Your task to perform on an android device: show emergency info Image 0: 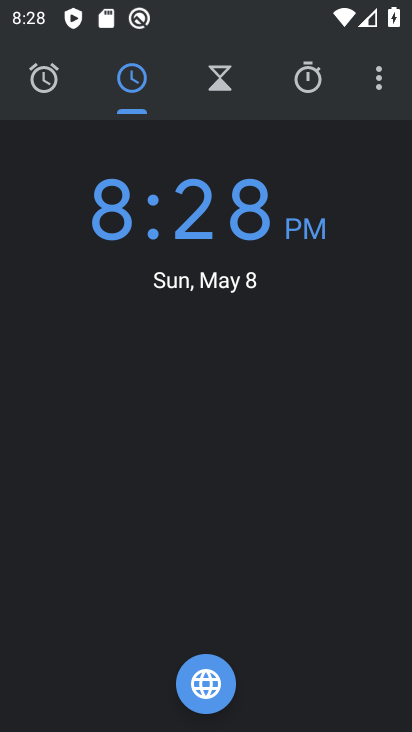
Step 0: press home button
Your task to perform on an android device: show emergency info Image 1: 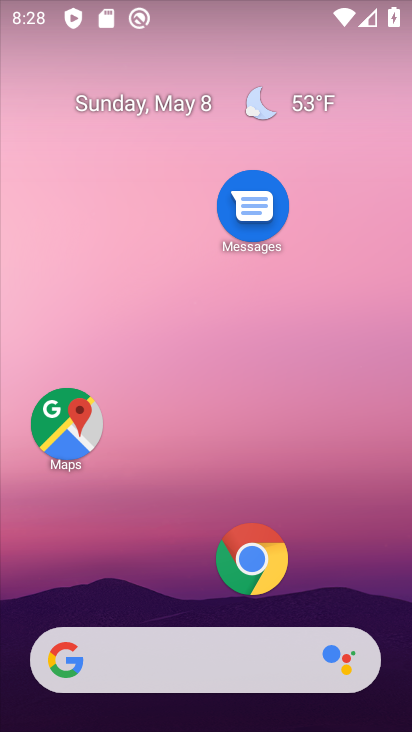
Step 1: drag from (139, 595) to (209, 84)
Your task to perform on an android device: show emergency info Image 2: 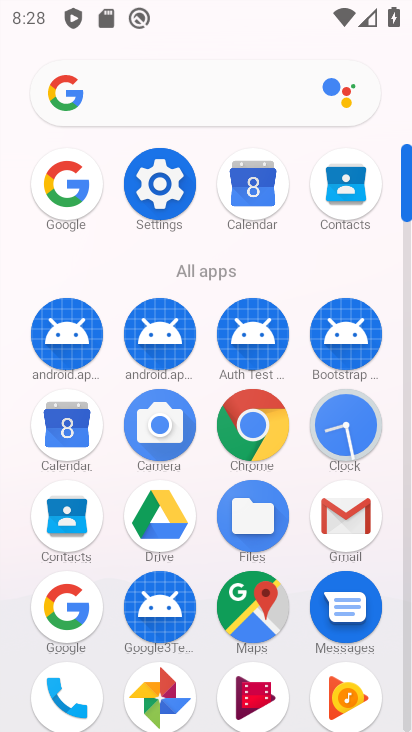
Step 2: click (164, 181)
Your task to perform on an android device: show emergency info Image 3: 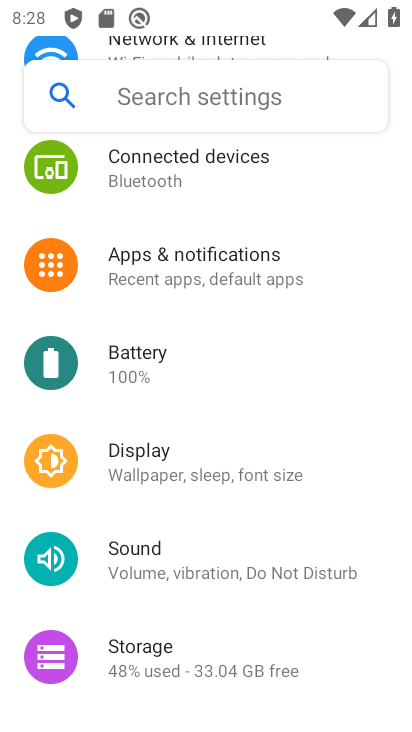
Step 3: drag from (242, 641) to (293, 9)
Your task to perform on an android device: show emergency info Image 4: 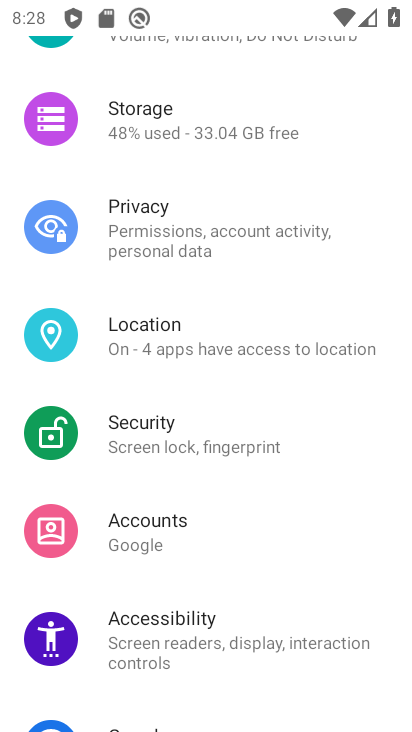
Step 4: drag from (203, 627) to (266, 5)
Your task to perform on an android device: show emergency info Image 5: 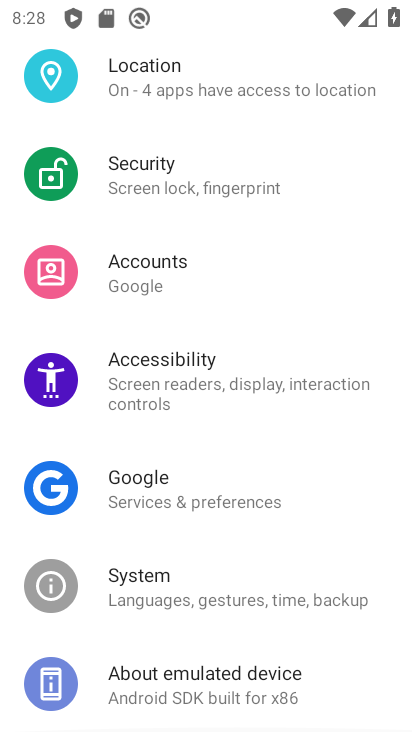
Step 5: click (149, 714)
Your task to perform on an android device: show emergency info Image 6: 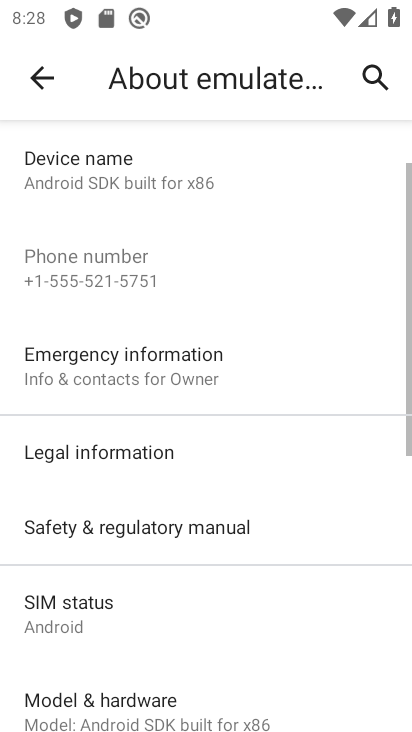
Step 6: click (96, 368)
Your task to perform on an android device: show emergency info Image 7: 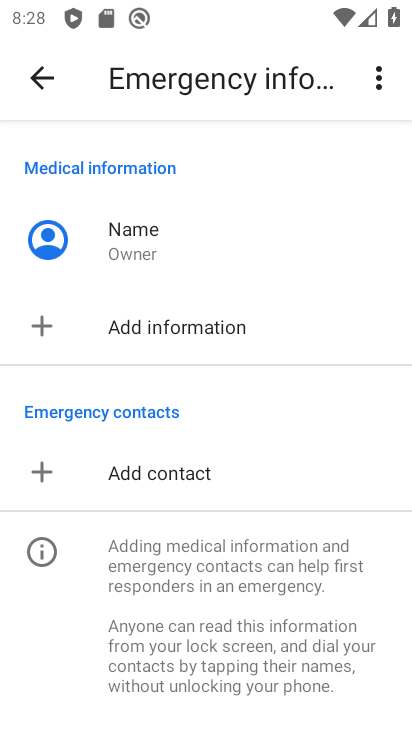
Step 7: task complete